Your task to perform on an android device: allow cookies in the chrome app Image 0: 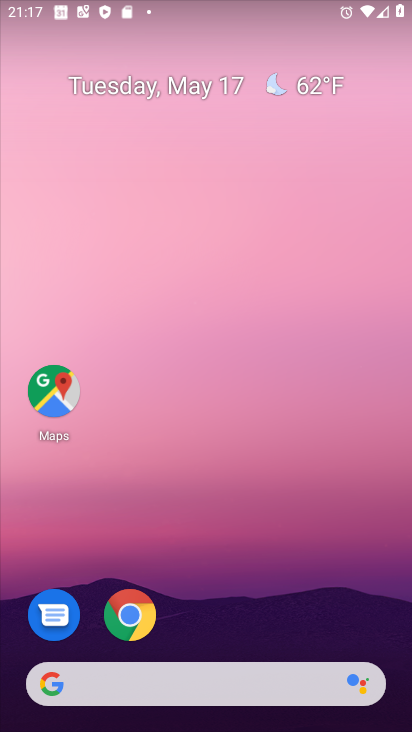
Step 0: click (115, 608)
Your task to perform on an android device: allow cookies in the chrome app Image 1: 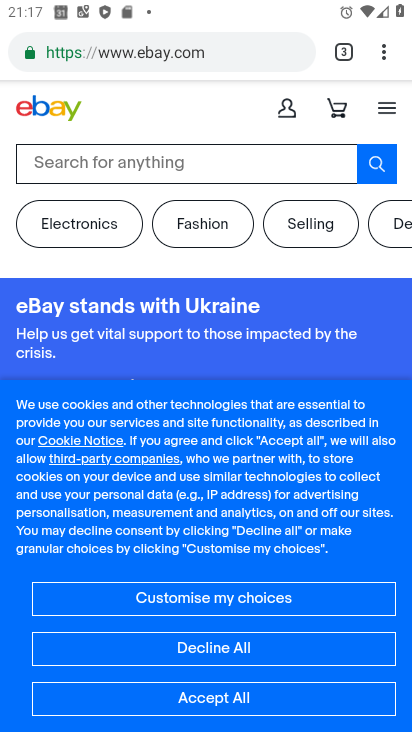
Step 1: drag from (384, 49) to (199, 624)
Your task to perform on an android device: allow cookies in the chrome app Image 2: 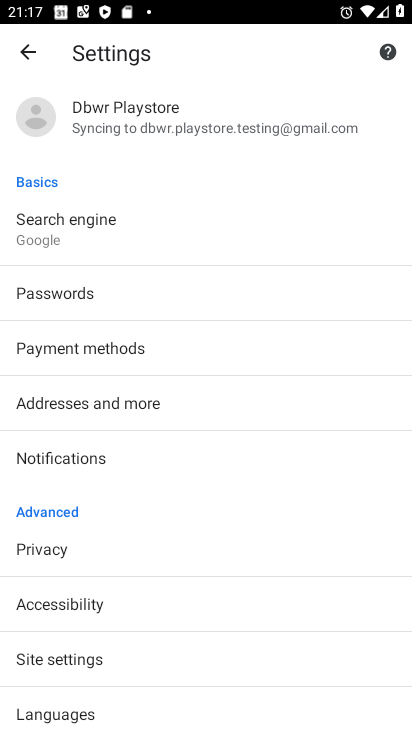
Step 2: drag from (97, 659) to (167, 326)
Your task to perform on an android device: allow cookies in the chrome app Image 3: 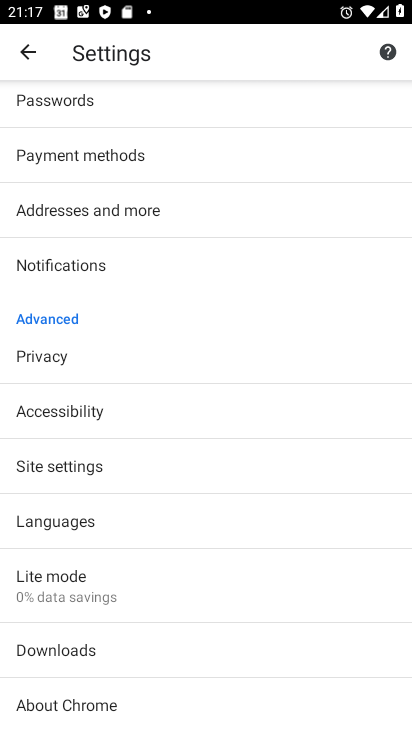
Step 3: click (52, 466)
Your task to perform on an android device: allow cookies in the chrome app Image 4: 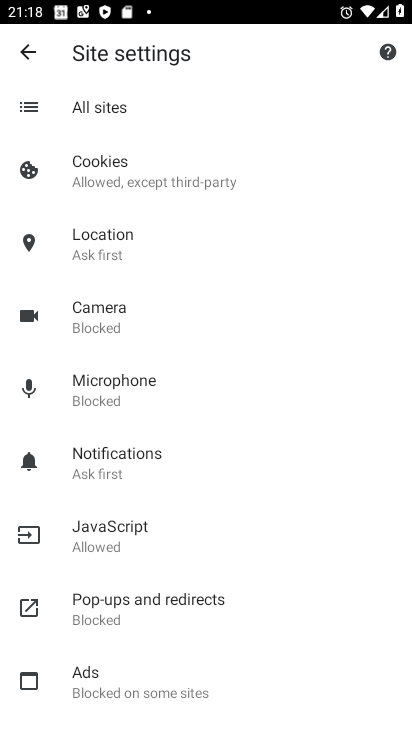
Step 4: task complete